Your task to perform on an android device: Go to Google Image 0: 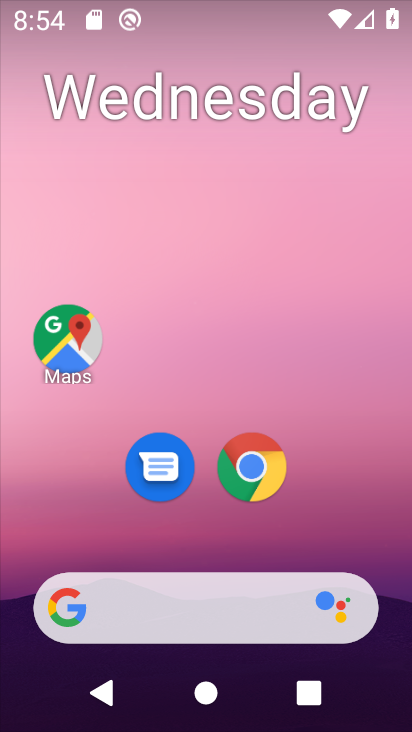
Step 0: drag from (340, 532) to (288, 59)
Your task to perform on an android device: Go to Google Image 1: 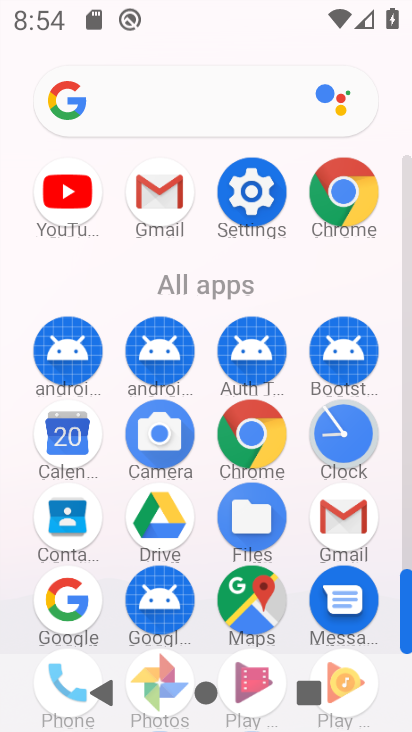
Step 1: drag from (395, 523) to (383, 311)
Your task to perform on an android device: Go to Google Image 2: 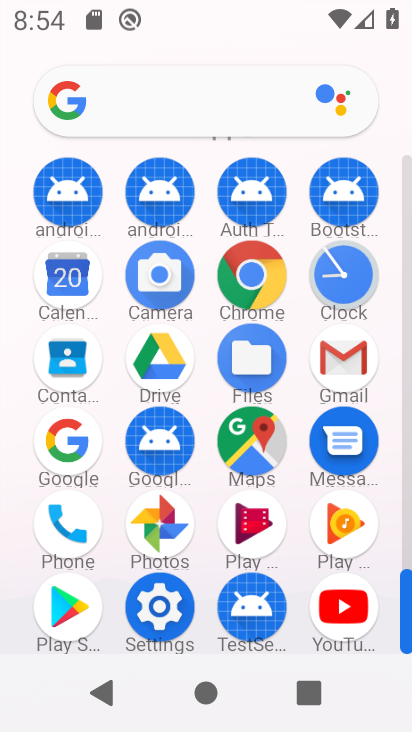
Step 2: click (68, 445)
Your task to perform on an android device: Go to Google Image 3: 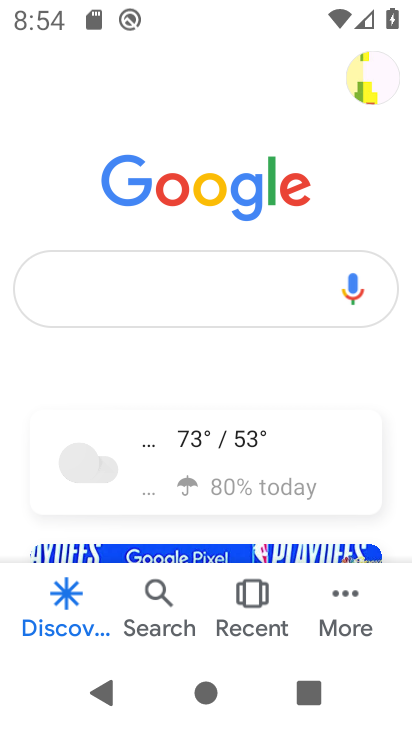
Step 3: task complete